Your task to perform on an android device: turn off translation in the chrome app Image 0: 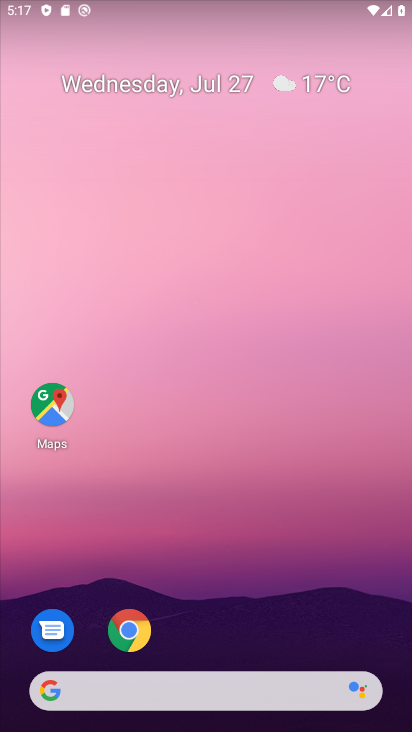
Step 0: press home button
Your task to perform on an android device: turn off translation in the chrome app Image 1: 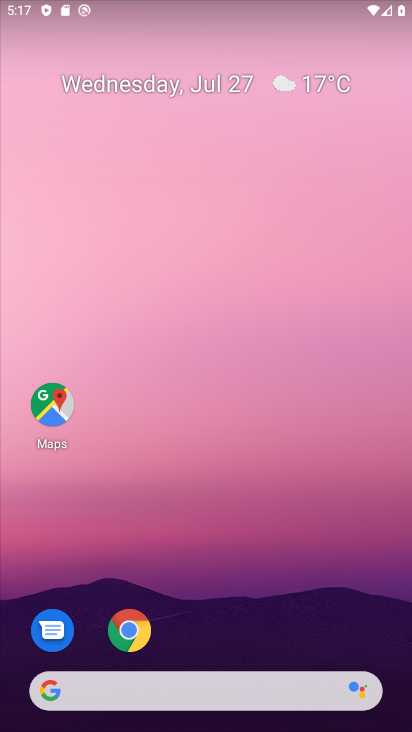
Step 1: click (128, 622)
Your task to perform on an android device: turn off translation in the chrome app Image 2: 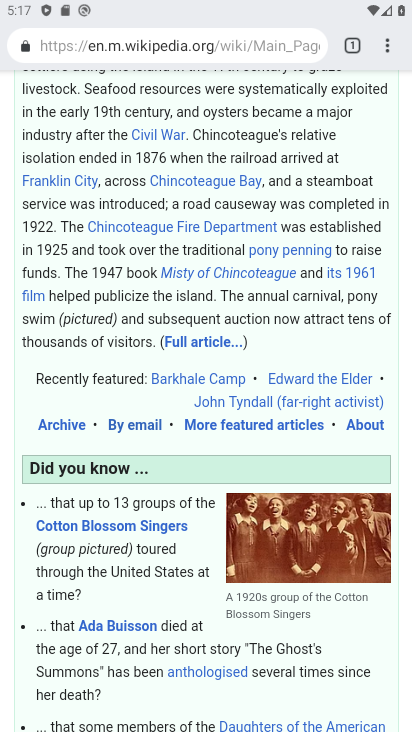
Step 2: click (388, 45)
Your task to perform on an android device: turn off translation in the chrome app Image 3: 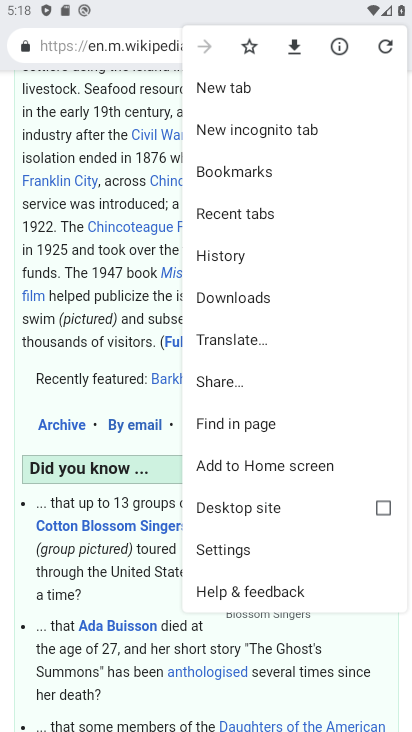
Step 3: click (261, 547)
Your task to perform on an android device: turn off translation in the chrome app Image 4: 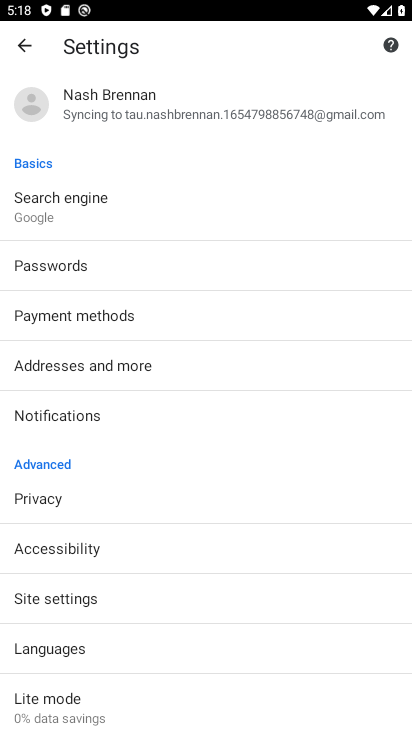
Step 4: click (97, 646)
Your task to perform on an android device: turn off translation in the chrome app Image 5: 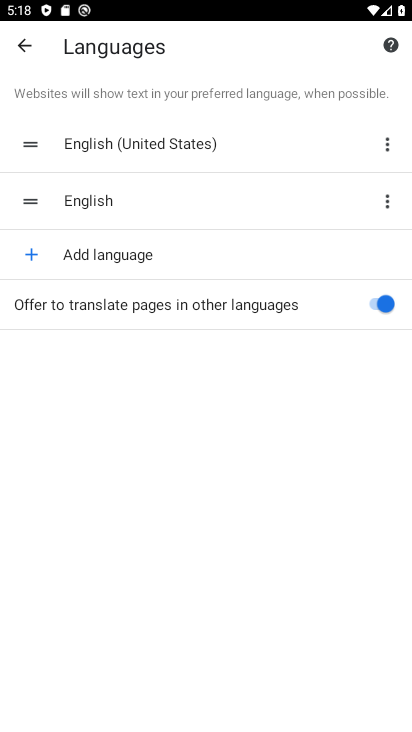
Step 5: click (369, 303)
Your task to perform on an android device: turn off translation in the chrome app Image 6: 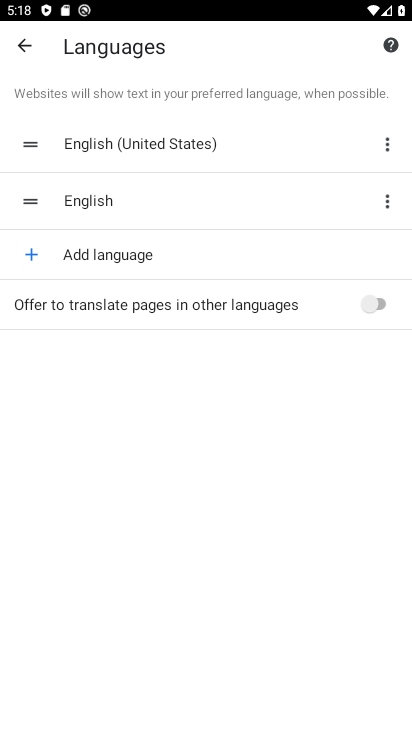
Step 6: task complete